Your task to perform on an android device: Open the web browser Image 0: 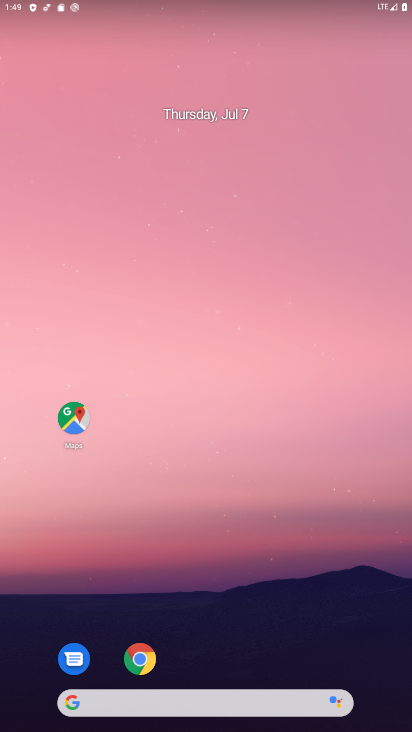
Step 0: click (141, 660)
Your task to perform on an android device: Open the web browser Image 1: 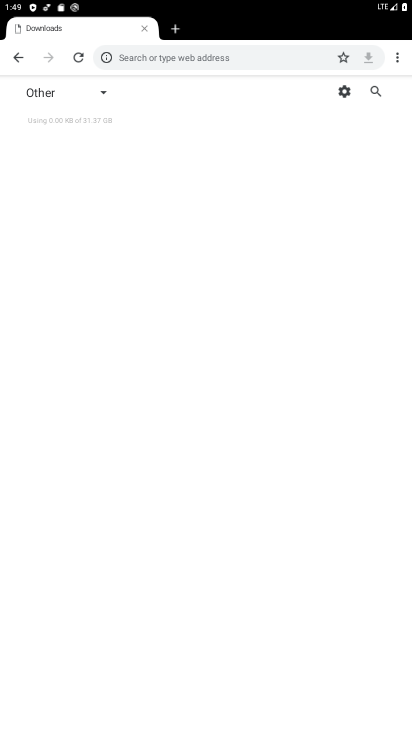
Step 1: task complete